Your task to perform on an android device: Open my contact list Image 0: 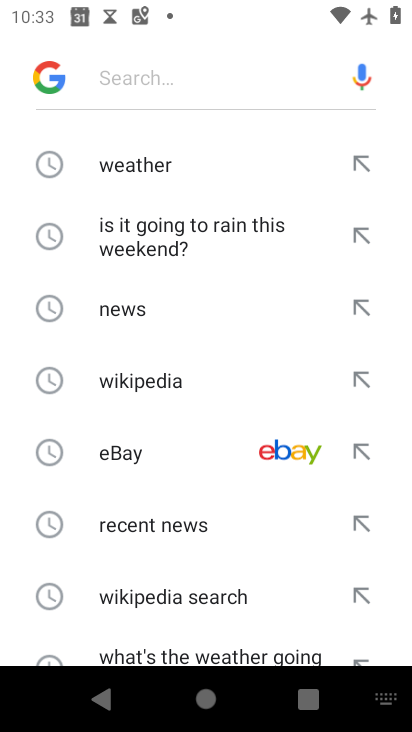
Step 0: press home button
Your task to perform on an android device: Open my contact list Image 1: 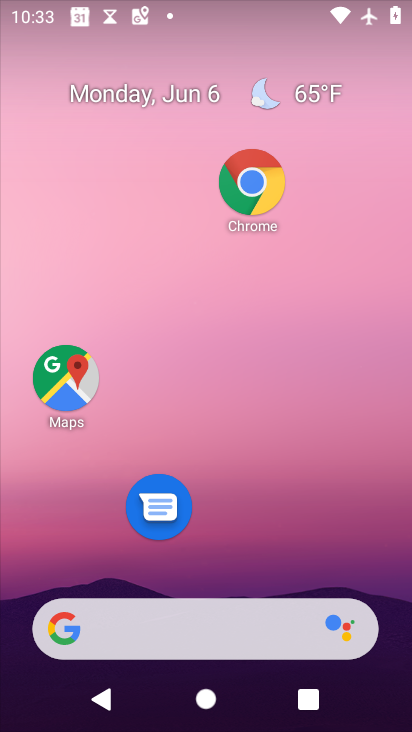
Step 1: drag from (237, 577) to (293, 137)
Your task to perform on an android device: Open my contact list Image 2: 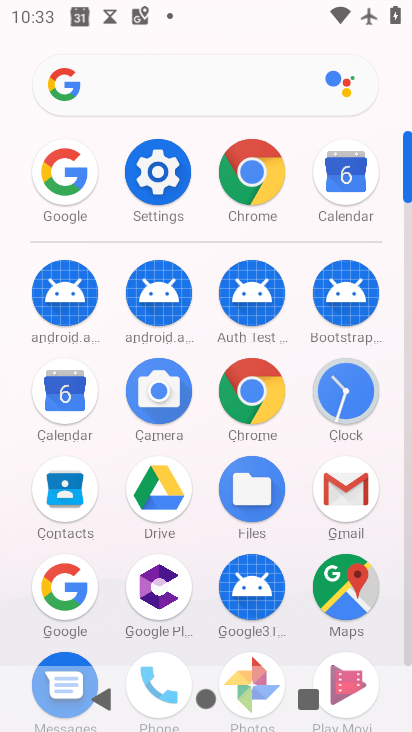
Step 2: click (167, 663)
Your task to perform on an android device: Open my contact list Image 3: 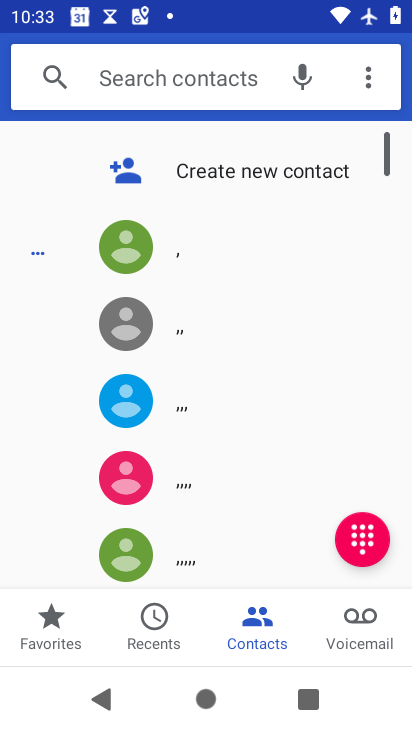
Step 3: click (245, 620)
Your task to perform on an android device: Open my contact list Image 4: 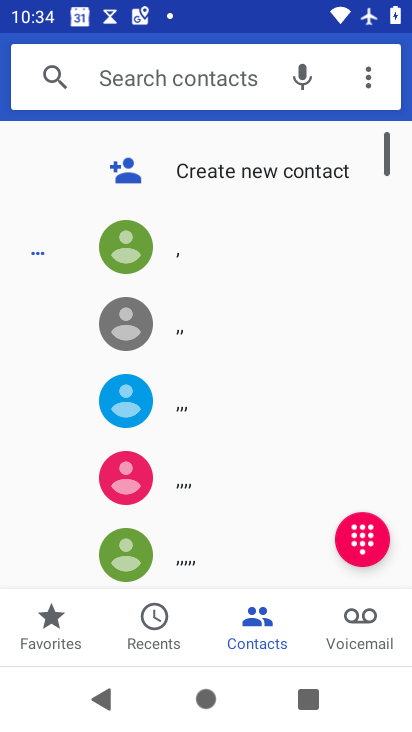
Step 4: task complete